Your task to perform on an android device: empty trash in google photos Image 0: 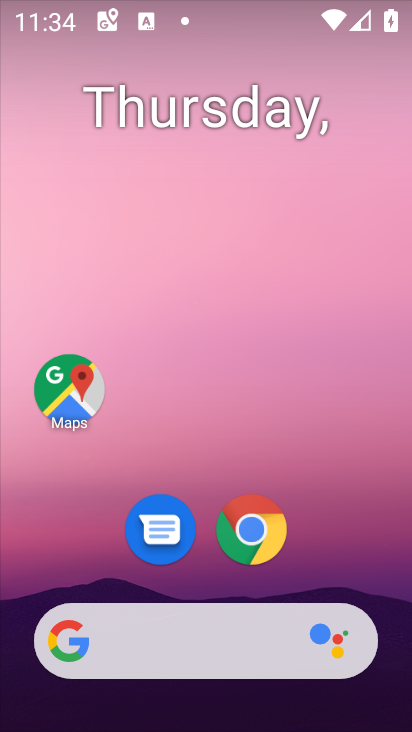
Step 0: drag from (251, 553) to (308, 193)
Your task to perform on an android device: empty trash in google photos Image 1: 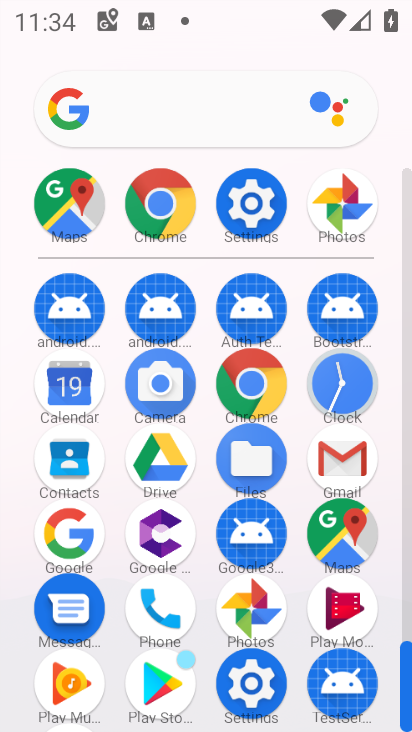
Step 1: click (265, 602)
Your task to perform on an android device: empty trash in google photos Image 2: 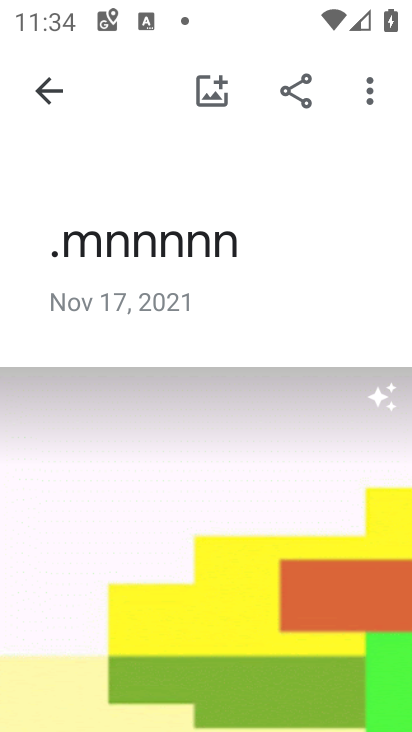
Step 2: click (35, 99)
Your task to perform on an android device: empty trash in google photos Image 3: 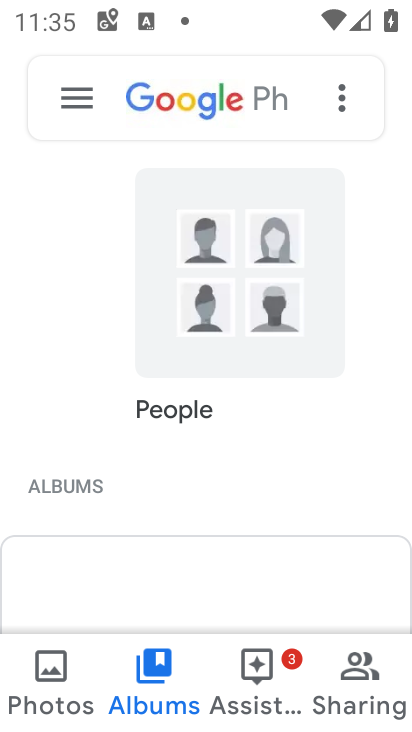
Step 3: click (79, 106)
Your task to perform on an android device: empty trash in google photos Image 4: 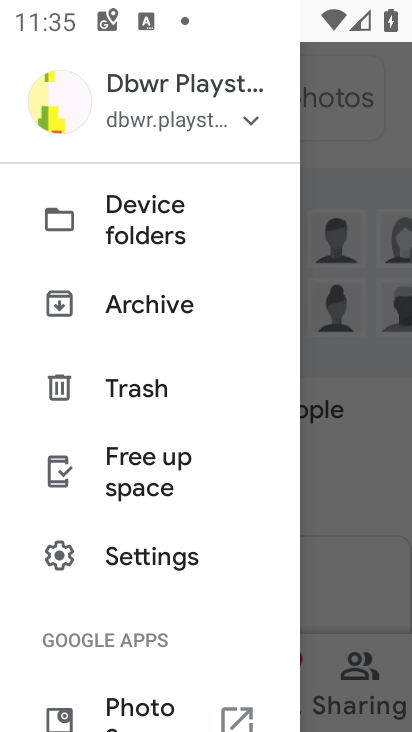
Step 4: click (149, 392)
Your task to perform on an android device: empty trash in google photos Image 5: 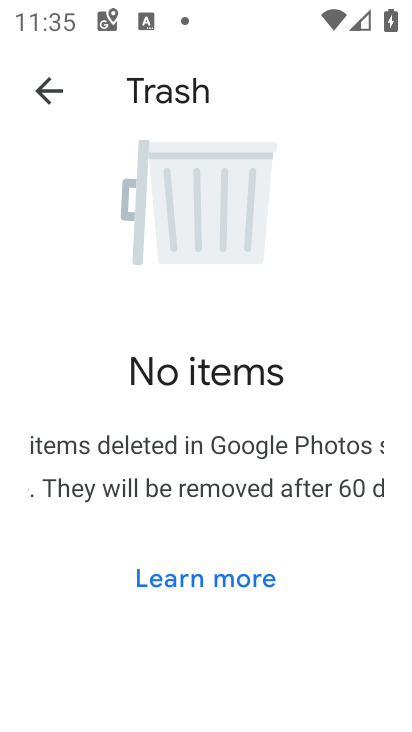
Step 5: task complete